Your task to perform on an android device: When is my next appointment? Image 0: 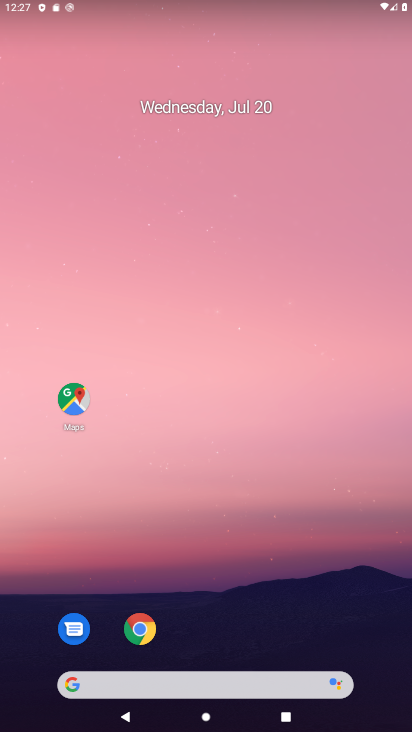
Step 0: click (217, 56)
Your task to perform on an android device: When is my next appointment? Image 1: 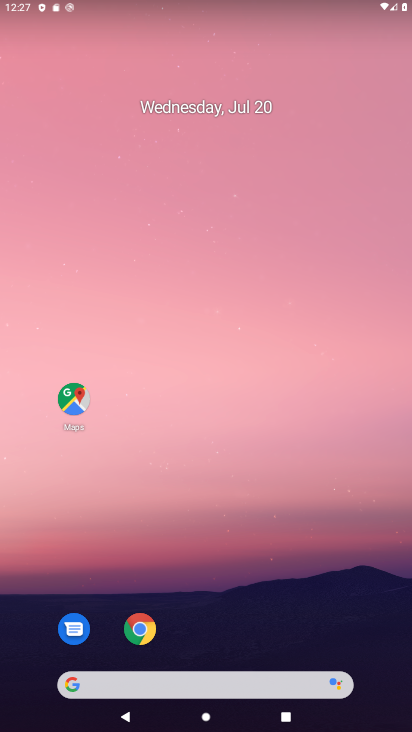
Step 1: drag from (230, 618) to (207, 87)
Your task to perform on an android device: When is my next appointment? Image 2: 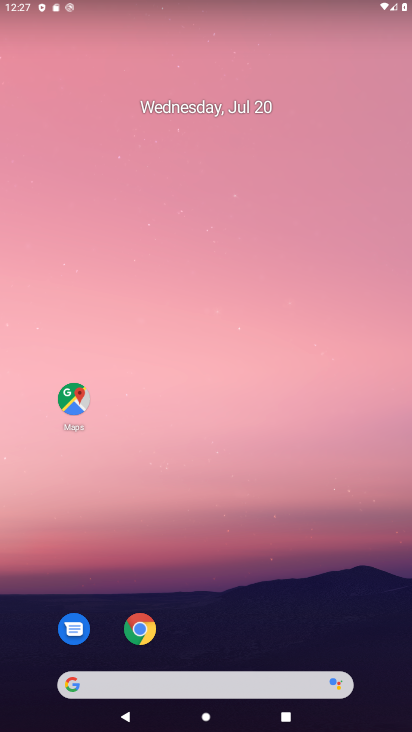
Step 2: drag from (244, 514) to (208, 50)
Your task to perform on an android device: When is my next appointment? Image 3: 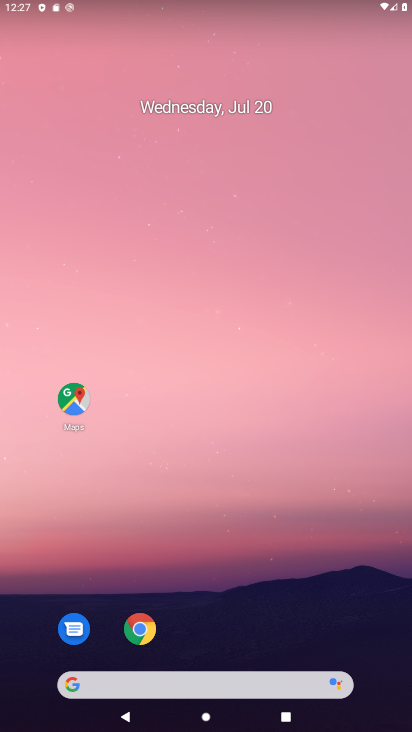
Step 3: drag from (259, 470) to (232, 99)
Your task to perform on an android device: When is my next appointment? Image 4: 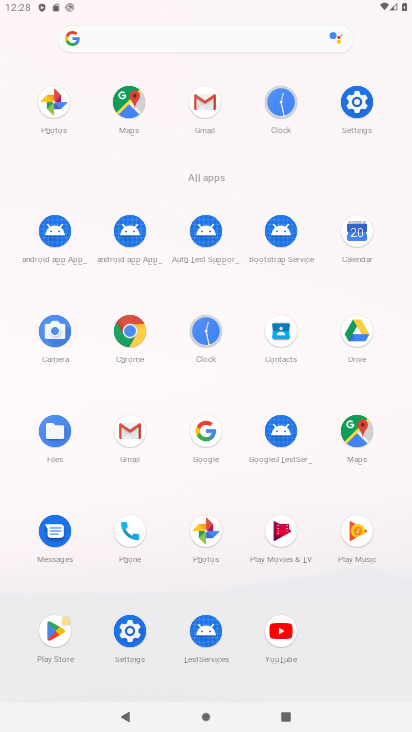
Step 4: click (362, 234)
Your task to perform on an android device: When is my next appointment? Image 5: 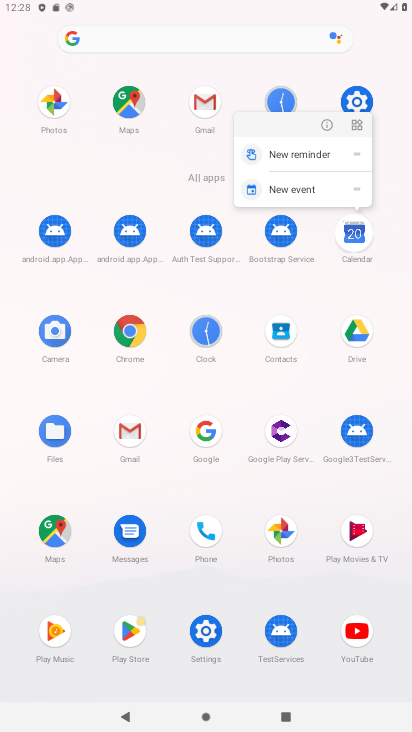
Step 5: click (358, 241)
Your task to perform on an android device: When is my next appointment? Image 6: 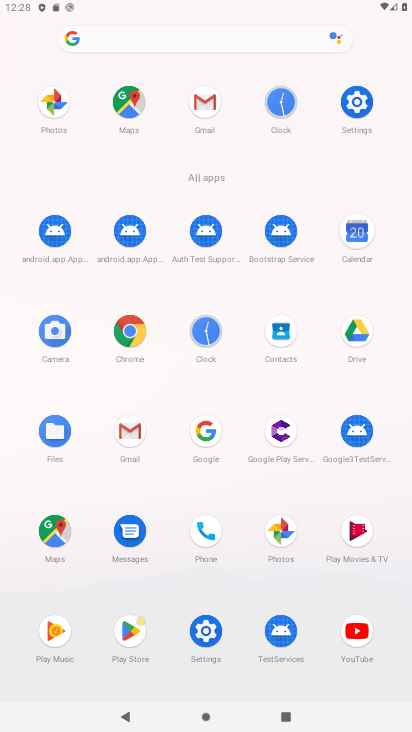
Step 6: click (355, 238)
Your task to perform on an android device: When is my next appointment? Image 7: 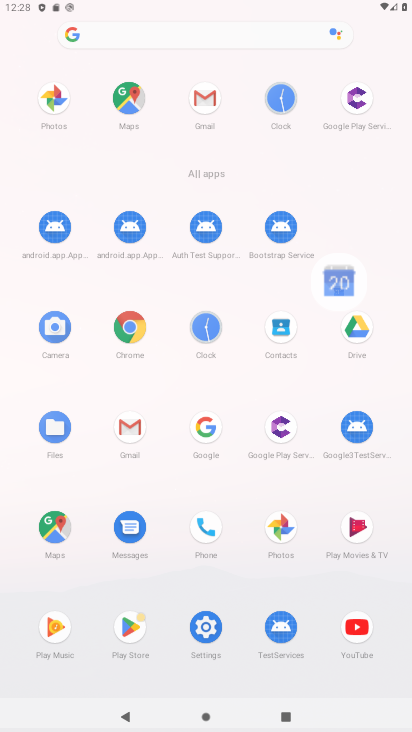
Step 7: click (355, 230)
Your task to perform on an android device: When is my next appointment? Image 8: 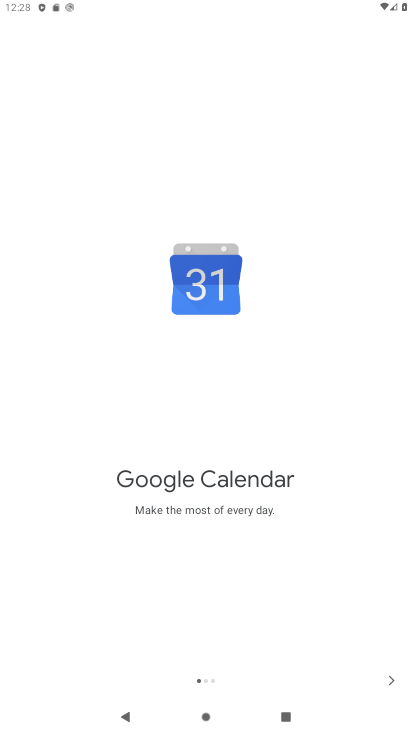
Step 8: click (395, 678)
Your task to perform on an android device: When is my next appointment? Image 9: 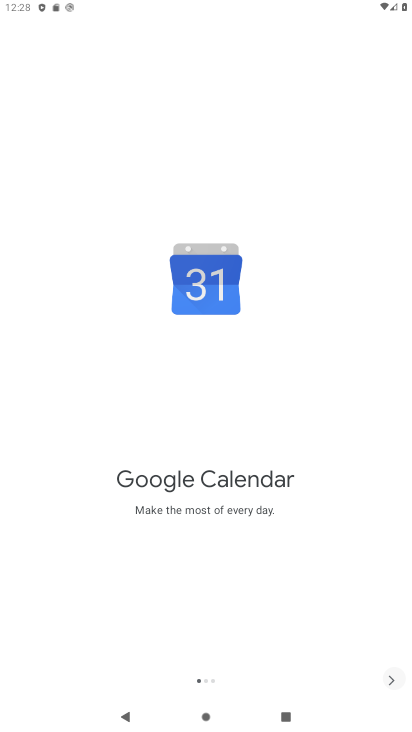
Step 9: click (395, 678)
Your task to perform on an android device: When is my next appointment? Image 10: 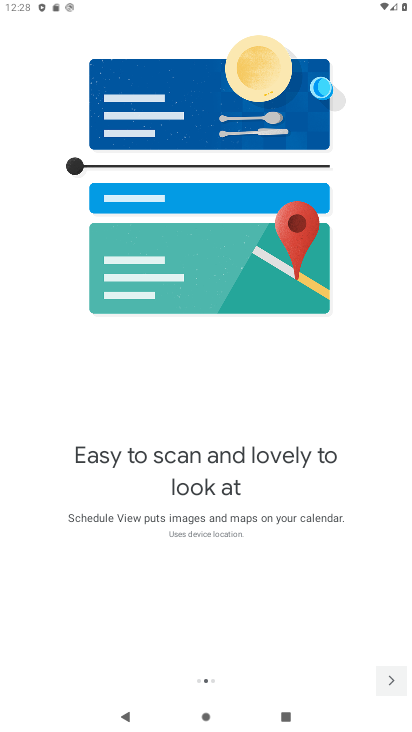
Step 10: click (391, 677)
Your task to perform on an android device: When is my next appointment? Image 11: 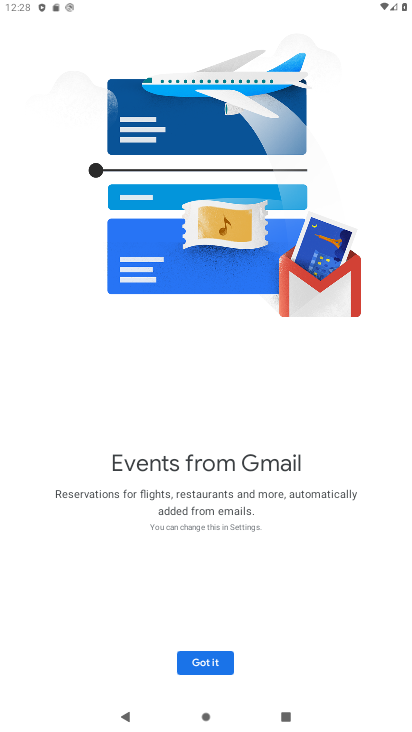
Step 11: click (391, 677)
Your task to perform on an android device: When is my next appointment? Image 12: 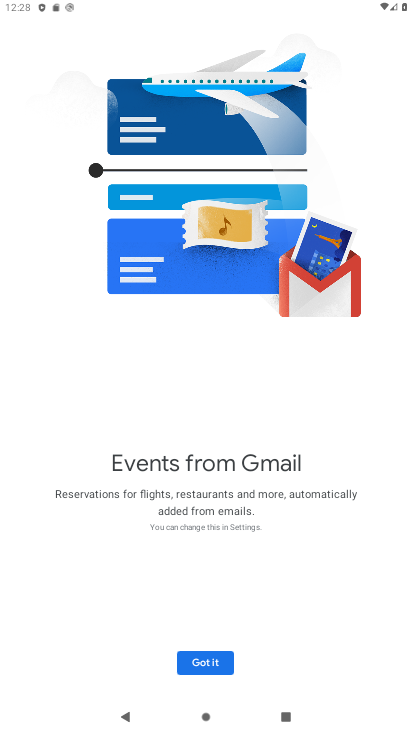
Step 12: click (225, 667)
Your task to perform on an android device: When is my next appointment? Image 13: 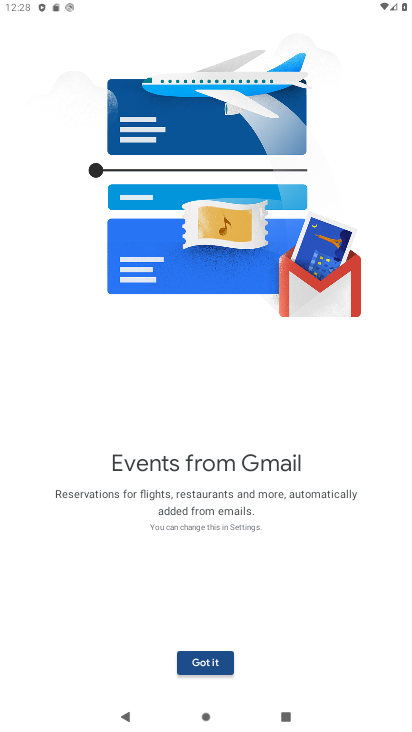
Step 13: click (226, 664)
Your task to perform on an android device: When is my next appointment? Image 14: 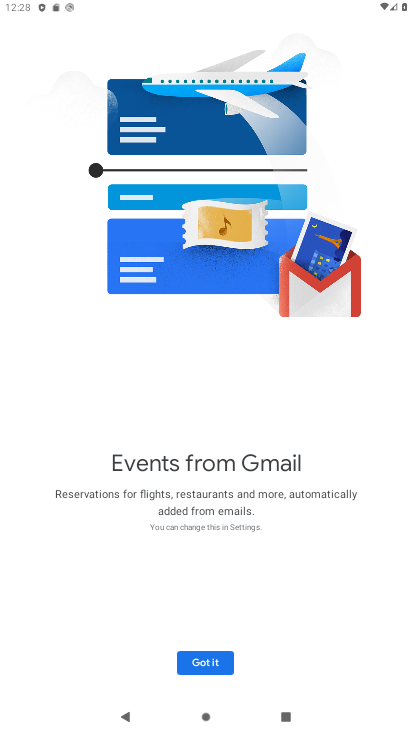
Step 14: click (227, 664)
Your task to perform on an android device: When is my next appointment? Image 15: 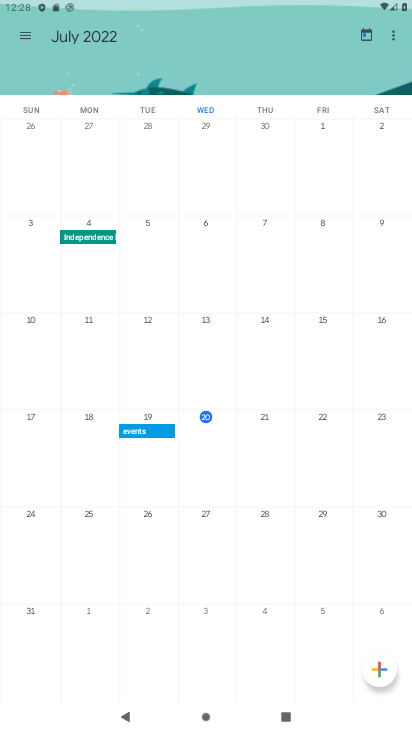
Step 15: task complete